Your task to perform on an android device: Go to sound settings Image 0: 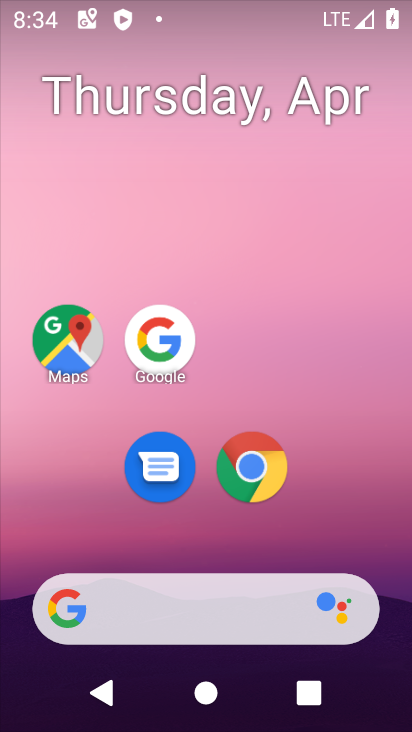
Step 0: drag from (167, 601) to (175, 13)
Your task to perform on an android device: Go to sound settings Image 1: 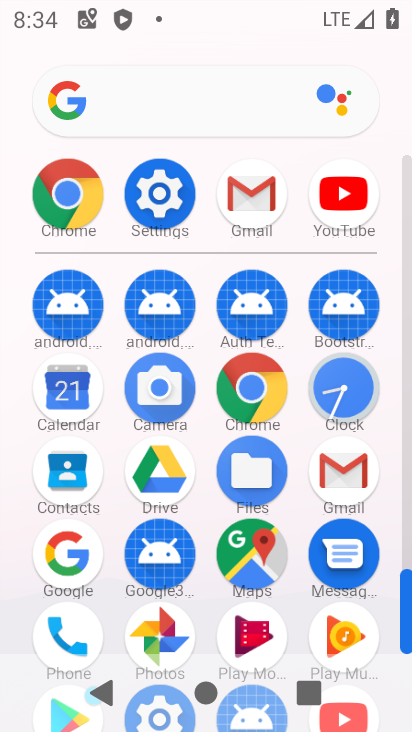
Step 1: click (187, 217)
Your task to perform on an android device: Go to sound settings Image 2: 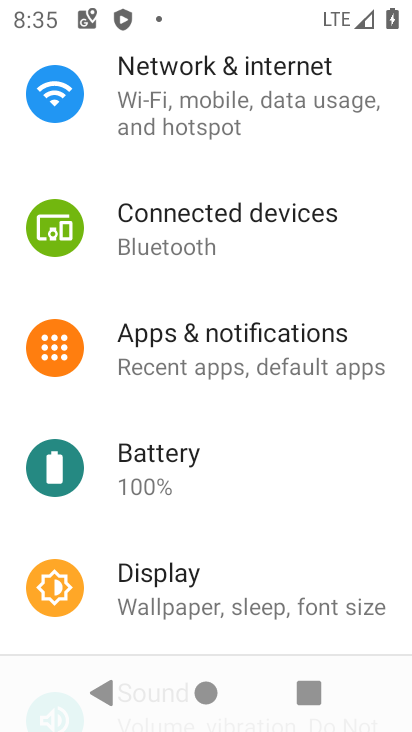
Step 2: drag from (178, 503) to (147, 33)
Your task to perform on an android device: Go to sound settings Image 3: 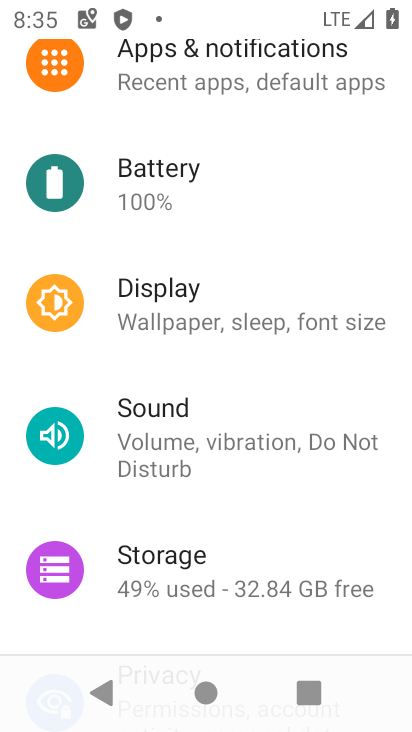
Step 3: click (183, 436)
Your task to perform on an android device: Go to sound settings Image 4: 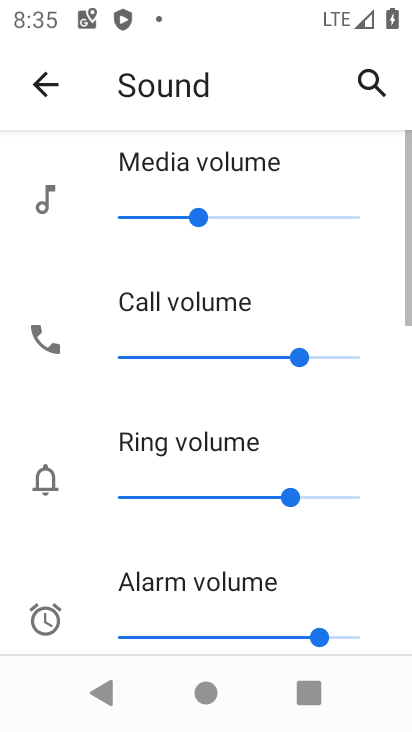
Step 4: task complete